Your task to perform on an android device: Show me popular games on the Play Store Image 0: 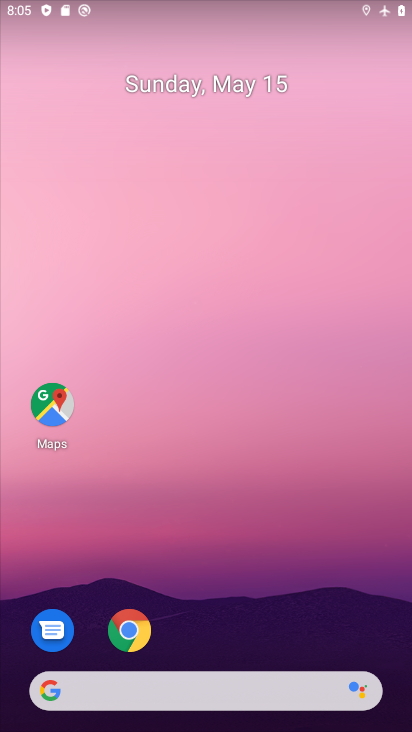
Step 0: drag from (227, 624) to (308, 89)
Your task to perform on an android device: Show me popular games on the Play Store Image 1: 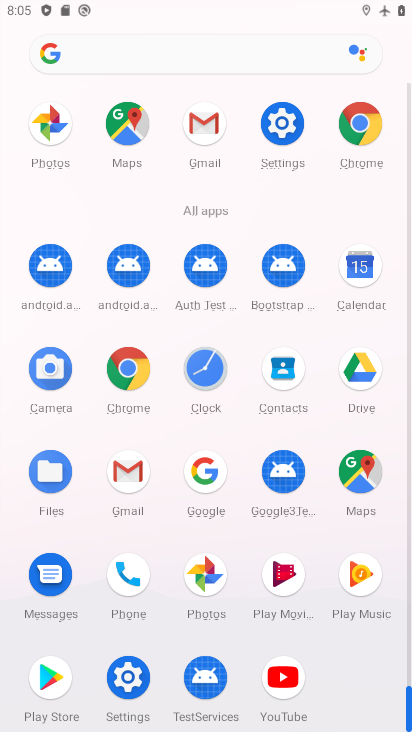
Step 1: click (54, 688)
Your task to perform on an android device: Show me popular games on the Play Store Image 2: 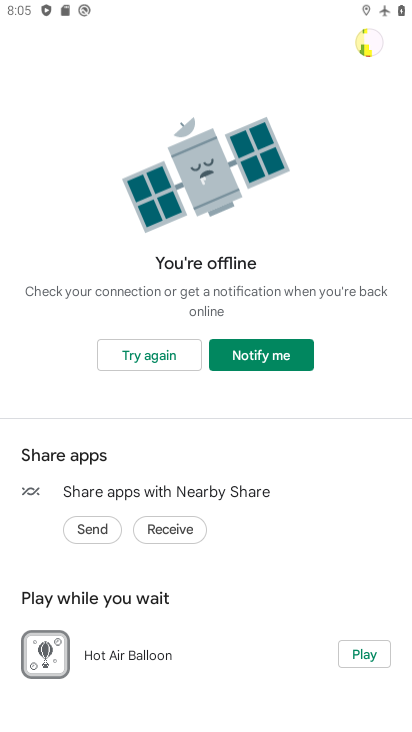
Step 2: click (177, 356)
Your task to perform on an android device: Show me popular games on the Play Store Image 3: 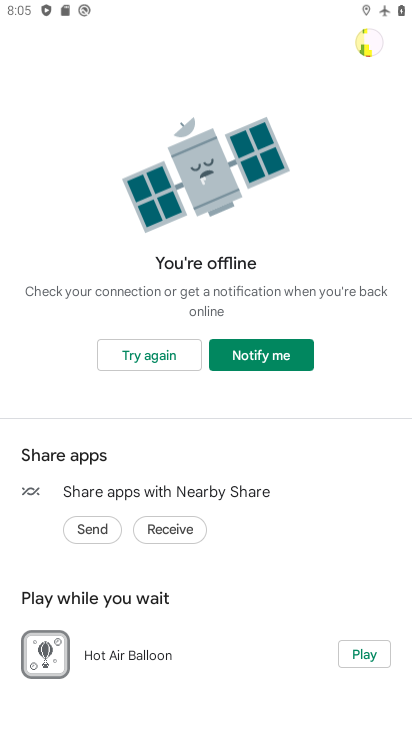
Step 3: task complete